Your task to perform on an android device: delete browsing data in the chrome app Image 0: 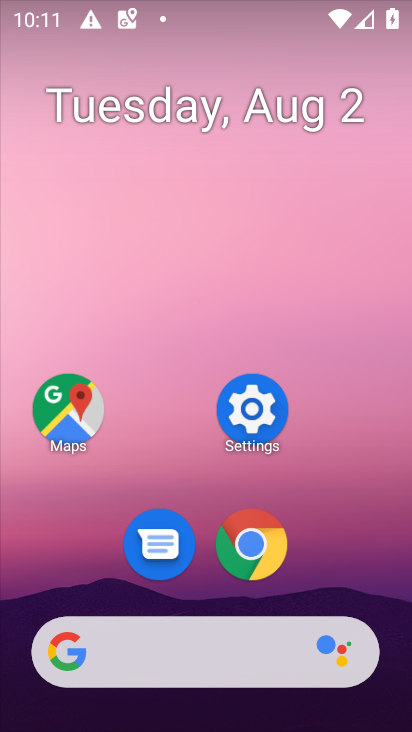
Step 0: click (263, 555)
Your task to perform on an android device: delete browsing data in the chrome app Image 1: 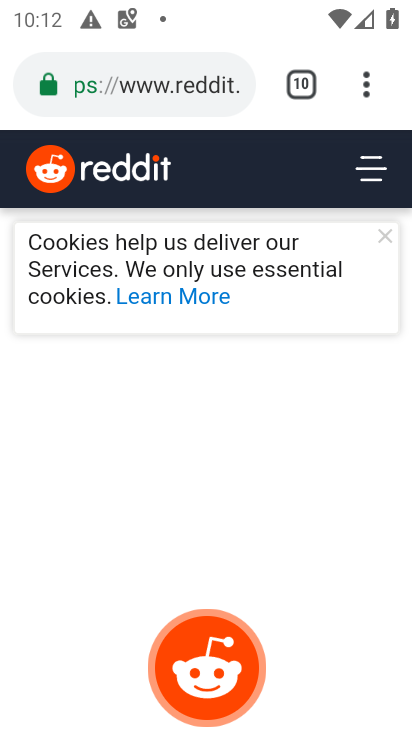
Step 1: drag from (371, 89) to (155, 614)
Your task to perform on an android device: delete browsing data in the chrome app Image 2: 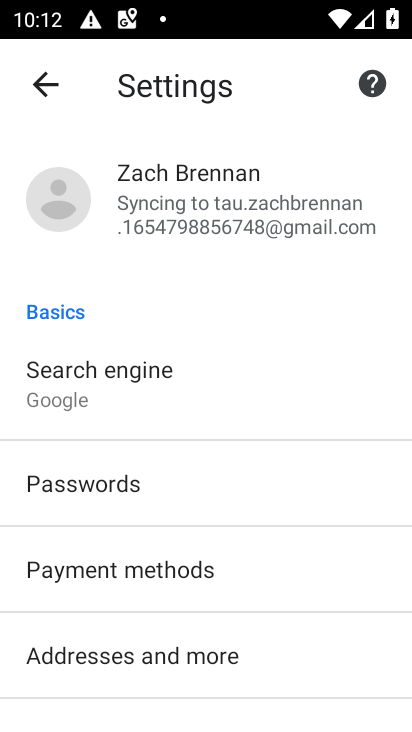
Step 2: drag from (215, 587) to (319, 255)
Your task to perform on an android device: delete browsing data in the chrome app Image 3: 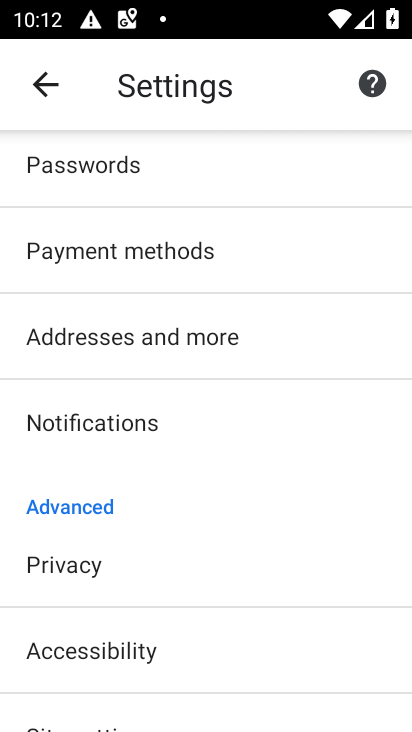
Step 3: drag from (239, 590) to (318, 225)
Your task to perform on an android device: delete browsing data in the chrome app Image 4: 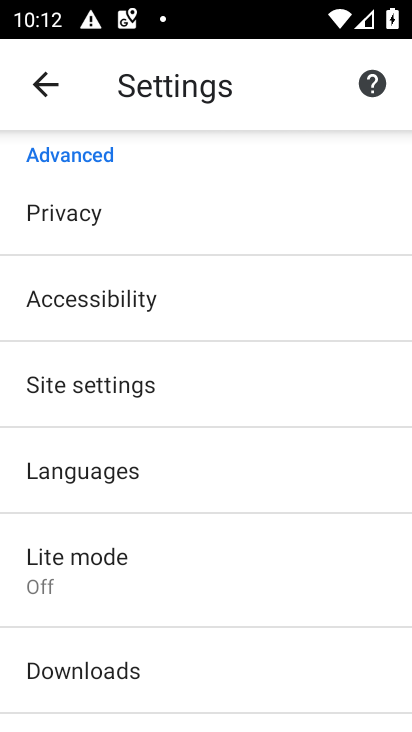
Step 4: click (54, 217)
Your task to perform on an android device: delete browsing data in the chrome app Image 5: 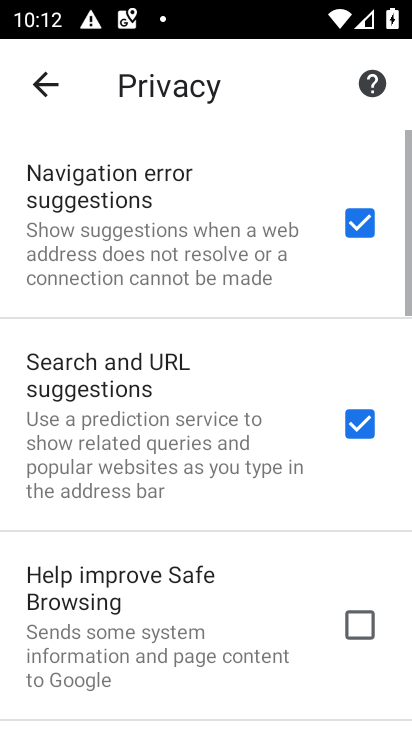
Step 5: drag from (192, 601) to (312, 135)
Your task to perform on an android device: delete browsing data in the chrome app Image 6: 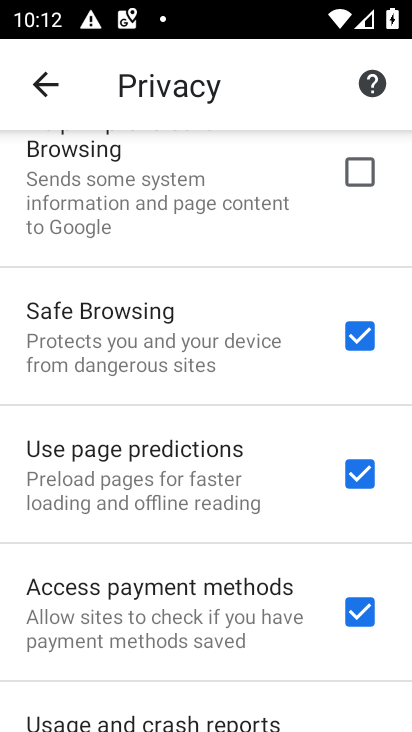
Step 6: drag from (197, 636) to (311, 110)
Your task to perform on an android device: delete browsing data in the chrome app Image 7: 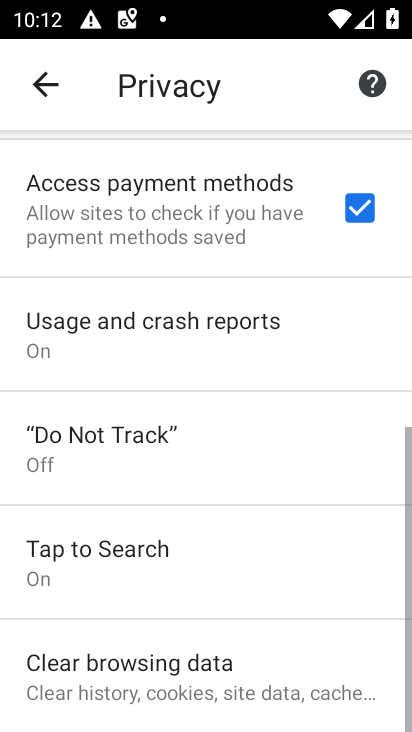
Step 7: click (170, 669)
Your task to perform on an android device: delete browsing data in the chrome app Image 8: 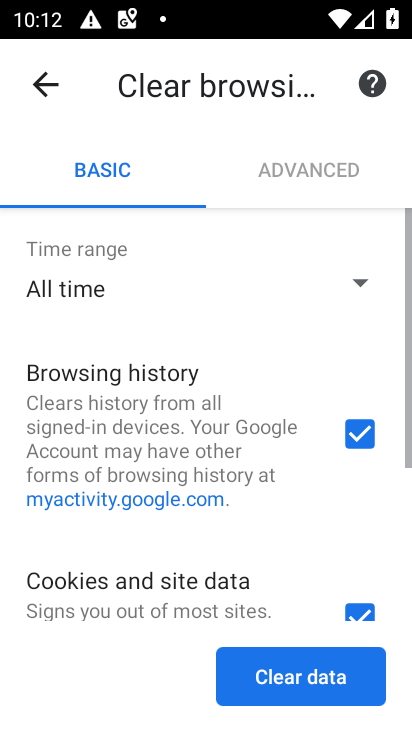
Step 8: drag from (292, 560) to (401, 202)
Your task to perform on an android device: delete browsing data in the chrome app Image 9: 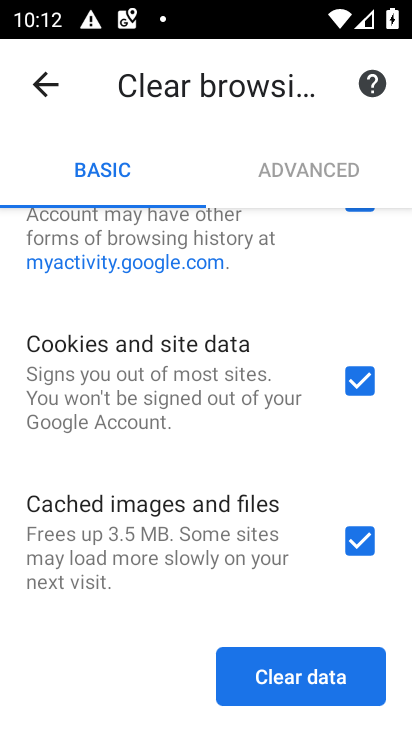
Step 9: click (301, 675)
Your task to perform on an android device: delete browsing data in the chrome app Image 10: 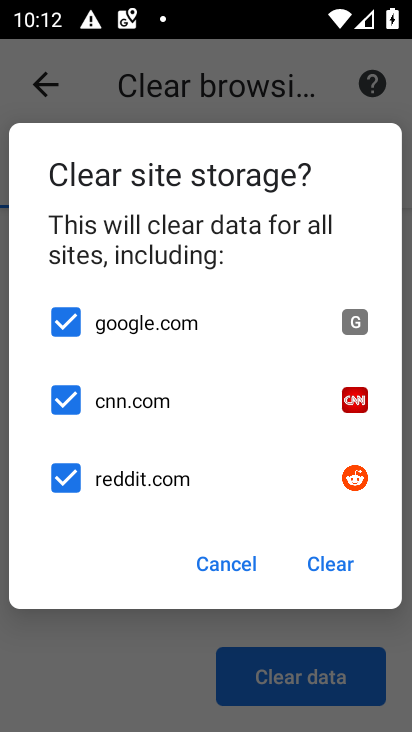
Step 10: click (334, 569)
Your task to perform on an android device: delete browsing data in the chrome app Image 11: 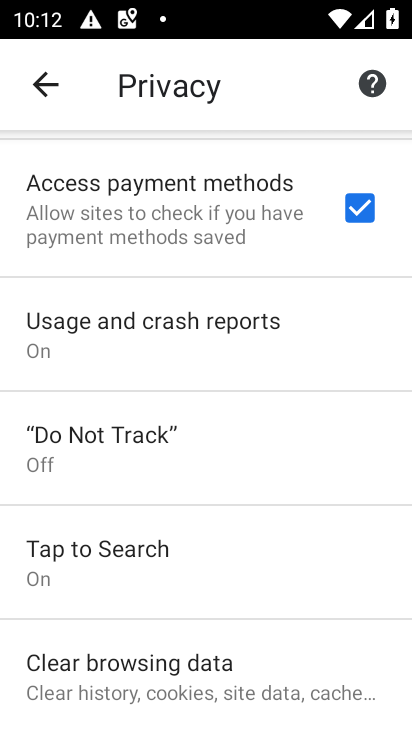
Step 11: task complete